Your task to perform on an android device: Open my contact list Image 0: 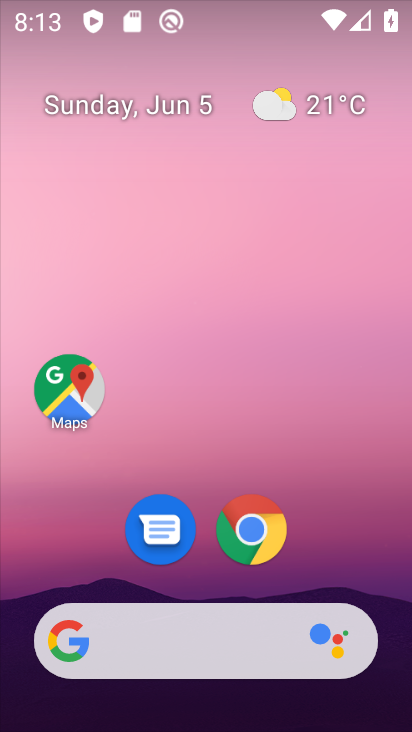
Step 0: drag from (221, 574) to (286, 66)
Your task to perform on an android device: Open my contact list Image 1: 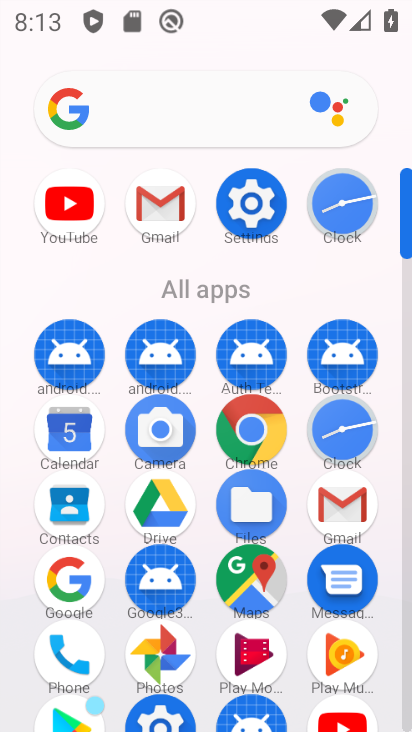
Step 1: drag from (251, 528) to (318, 116)
Your task to perform on an android device: Open my contact list Image 2: 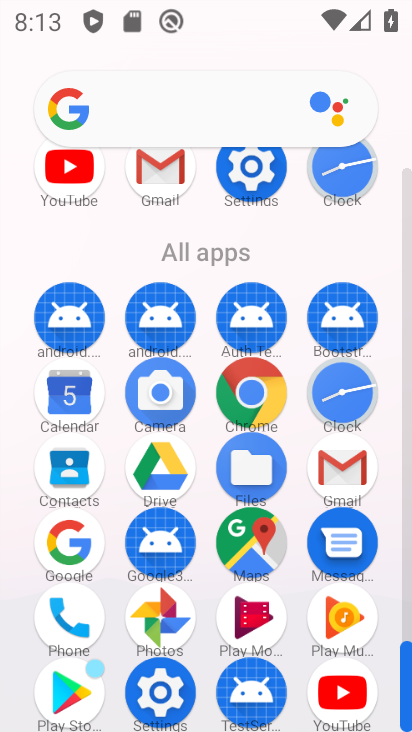
Step 2: click (43, 473)
Your task to perform on an android device: Open my contact list Image 3: 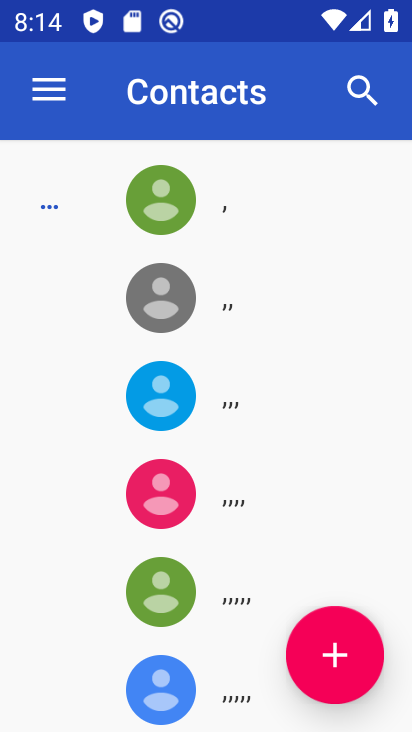
Step 3: task complete